Your task to perform on an android device: Search for seafood restaurants on Google Maps Image 0: 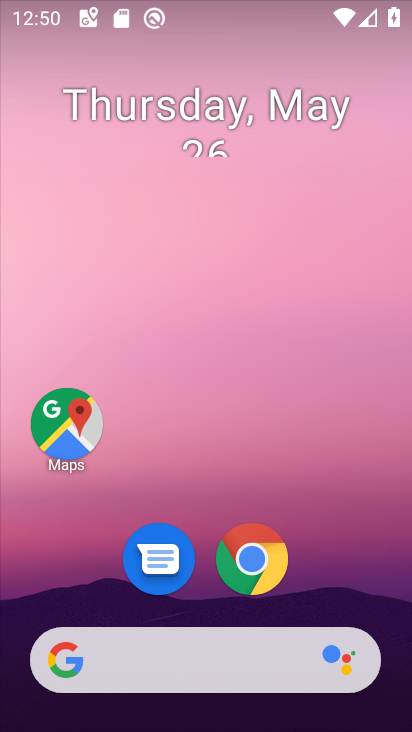
Step 0: press home button
Your task to perform on an android device: Search for seafood restaurants on Google Maps Image 1: 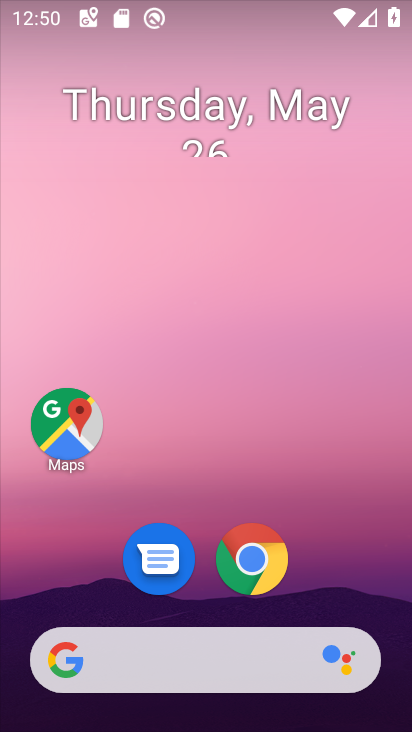
Step 1: click (61, 435)
Your task to perform on an android device: Search for seafood restaurants on Google Maps Image 2: 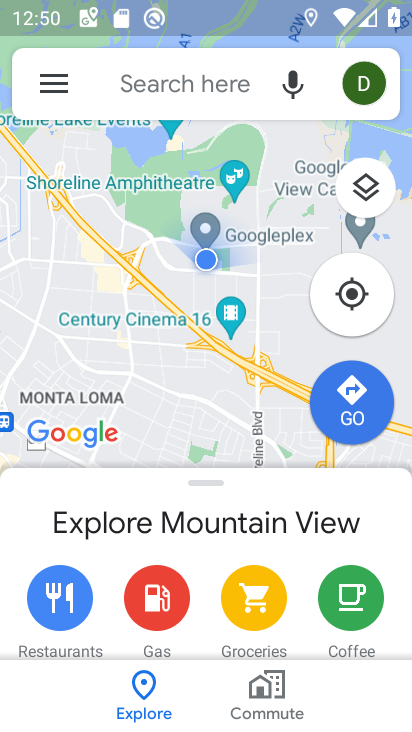
Step 2: click (158, 95)
Your task to perform on an android device: Search for seafood restaurants on Google Maps Image 3: 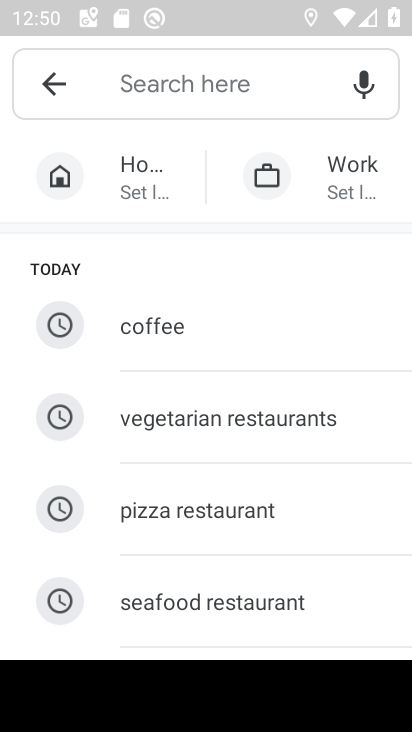
Step 3: click (205, 606)
Your task to perform on an android device: Search for seafood restaurants on Google Maps Image 4: 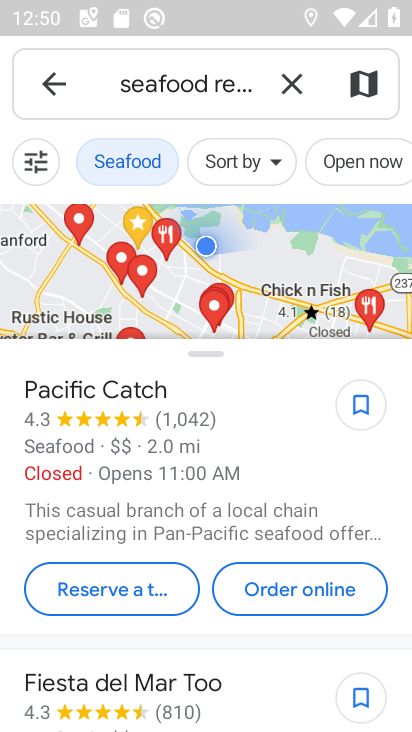
Step 4: task complete